Your task to perform on an android device: open app "Flipkart Online Shopping App" (install if not already installed) and go to login screen Image 0: 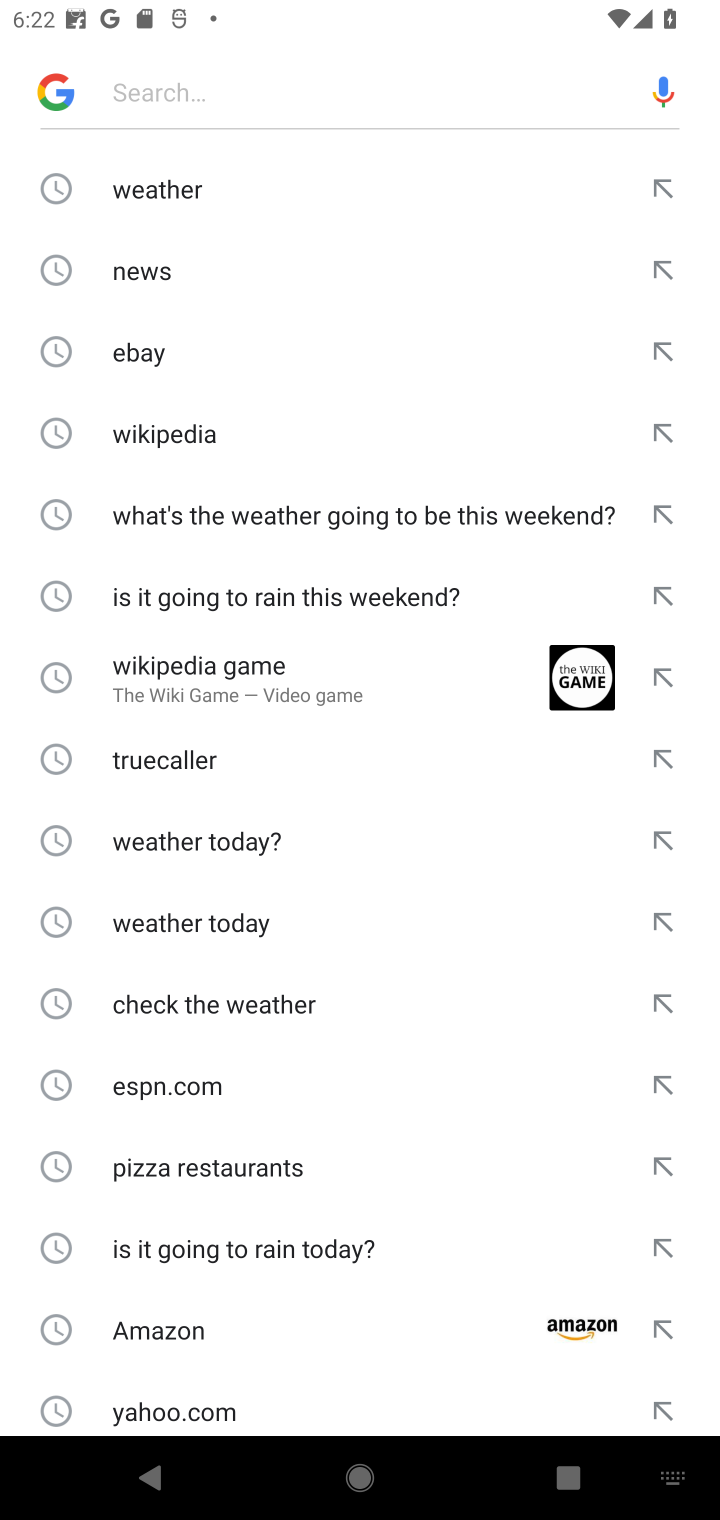
Step 0: press home button
Your task to perform on an android device: open app "Flipkart Online Shopping App" (install if not already installed) and go to login screen Image 1: 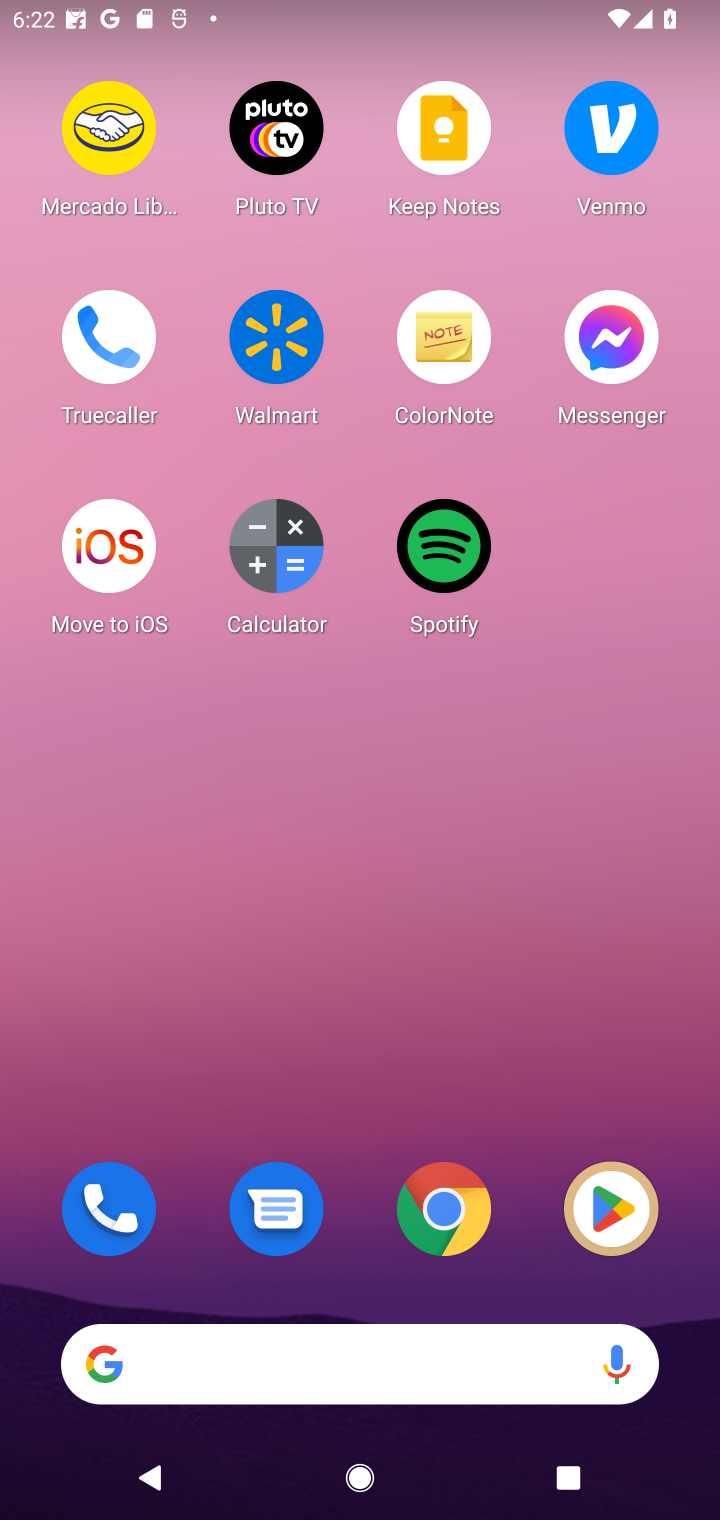
Step 1: drag from (335, 1283) to (324, 61)
Your task to perform on an android device: open app "Flipkart Online Shopping App" (install if not already installed) and go to login screen Image 2: 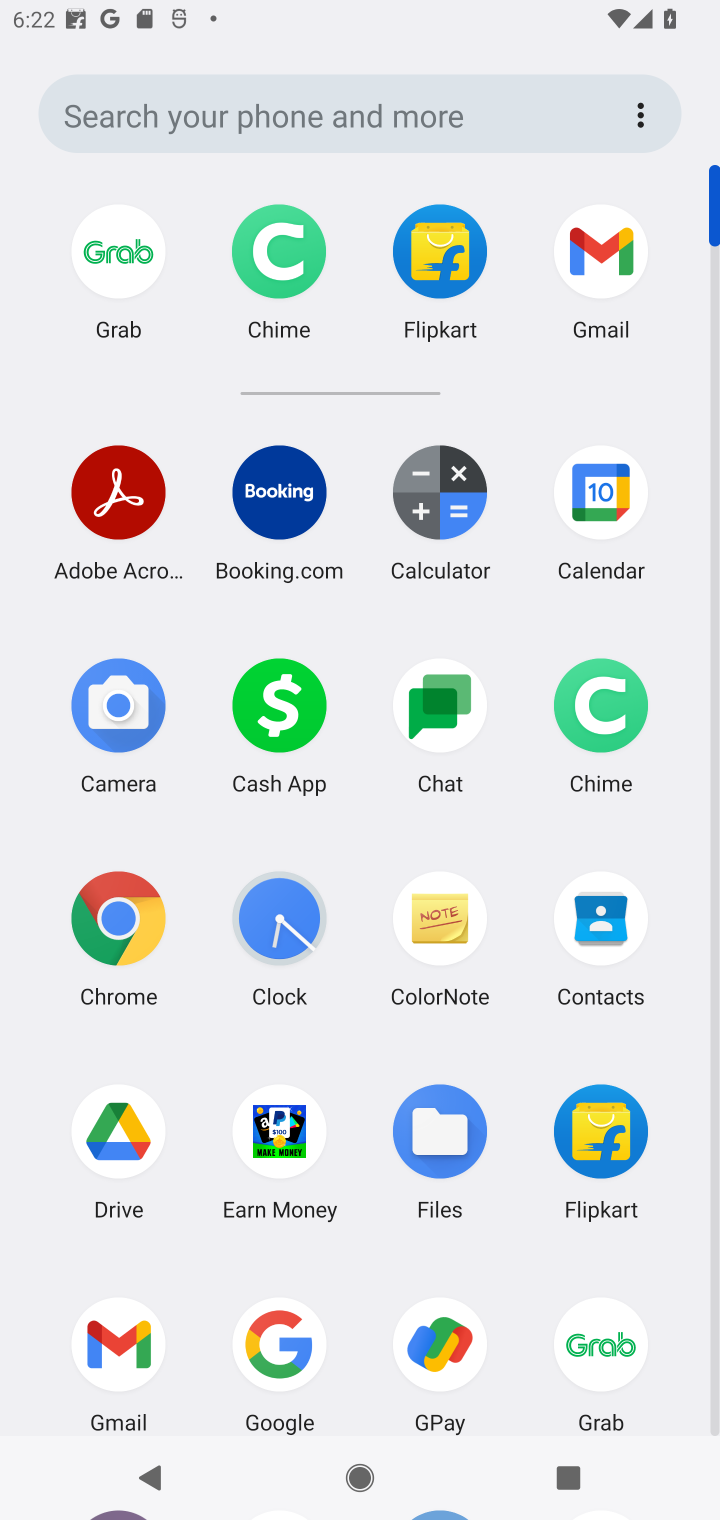
Step 2: press home button
Your task to perform on an android device: open app "Flipkart Online Shopping App" (install if not already installed) and go to login screen Image 3: 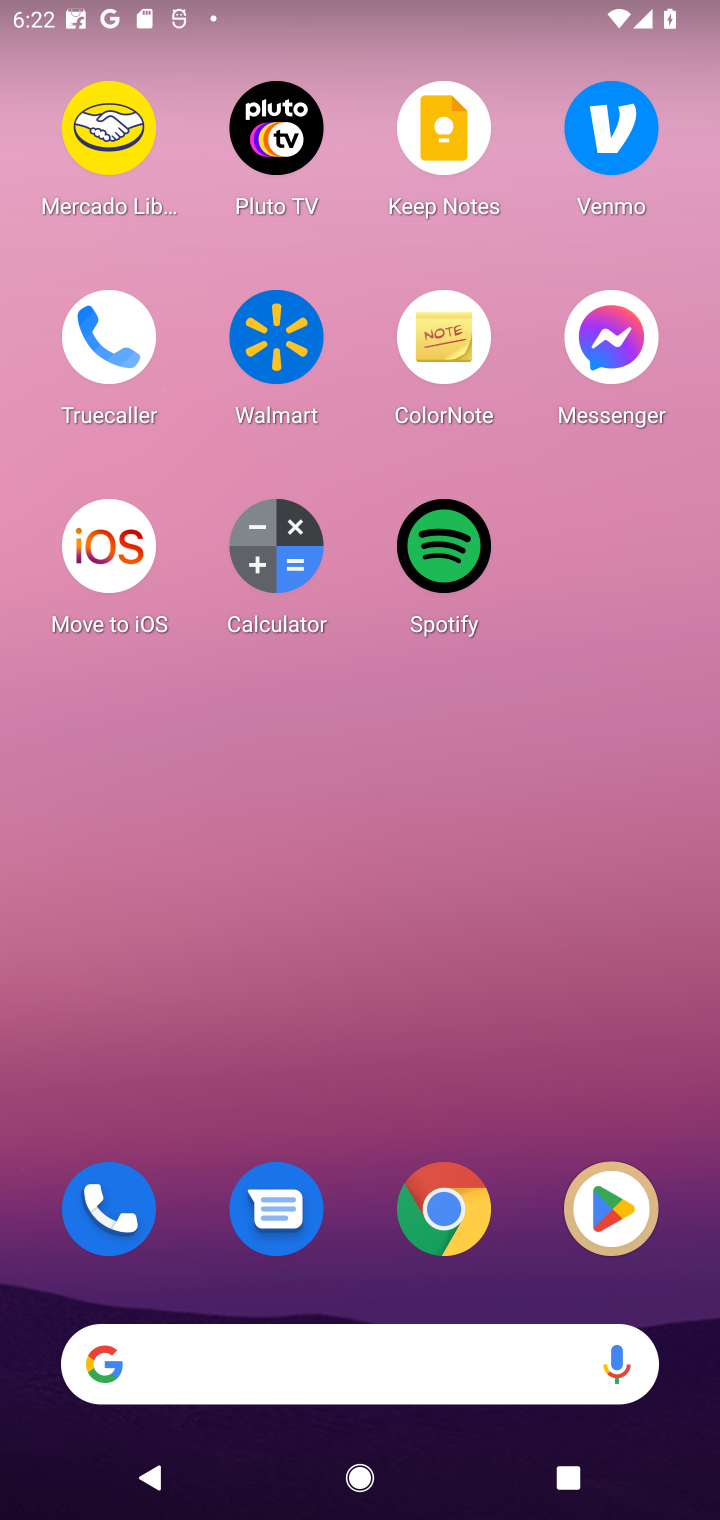
Step 3: click (634, 1211)
Your task to perform on an android device: open app "Flipkart Online Shopping App" (install if not already installed) and go to login screen Image 4: 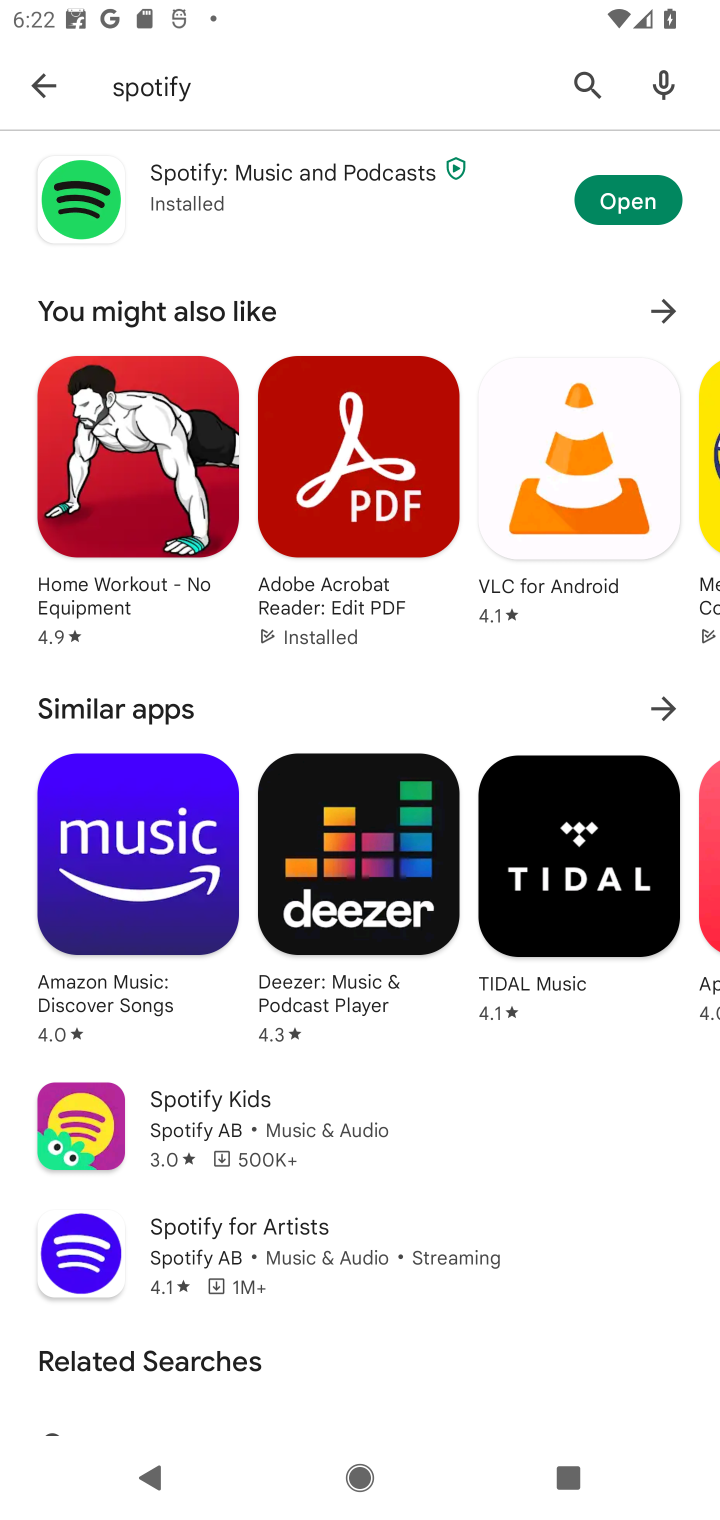
Step 4: click (583, 110)
Your task to perform on an android device: open app "Flipkart Online Shopping App" (install if not already installed) and go to login screen Image 5: 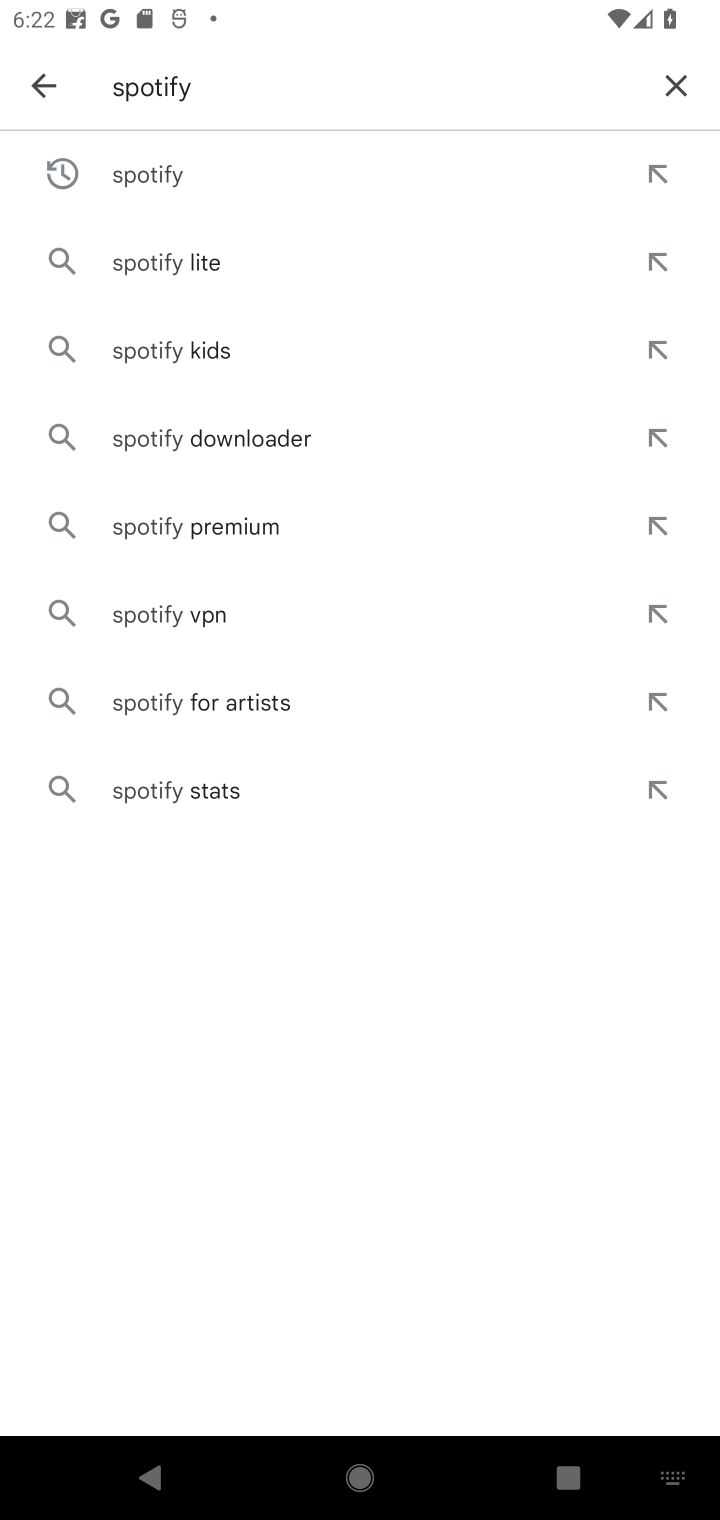
Step 5: click (662, 82)
Your task to perform on an android device: open app "Flipkart Online Shopping App" (install if not already installed) and go to login screen Image 6: 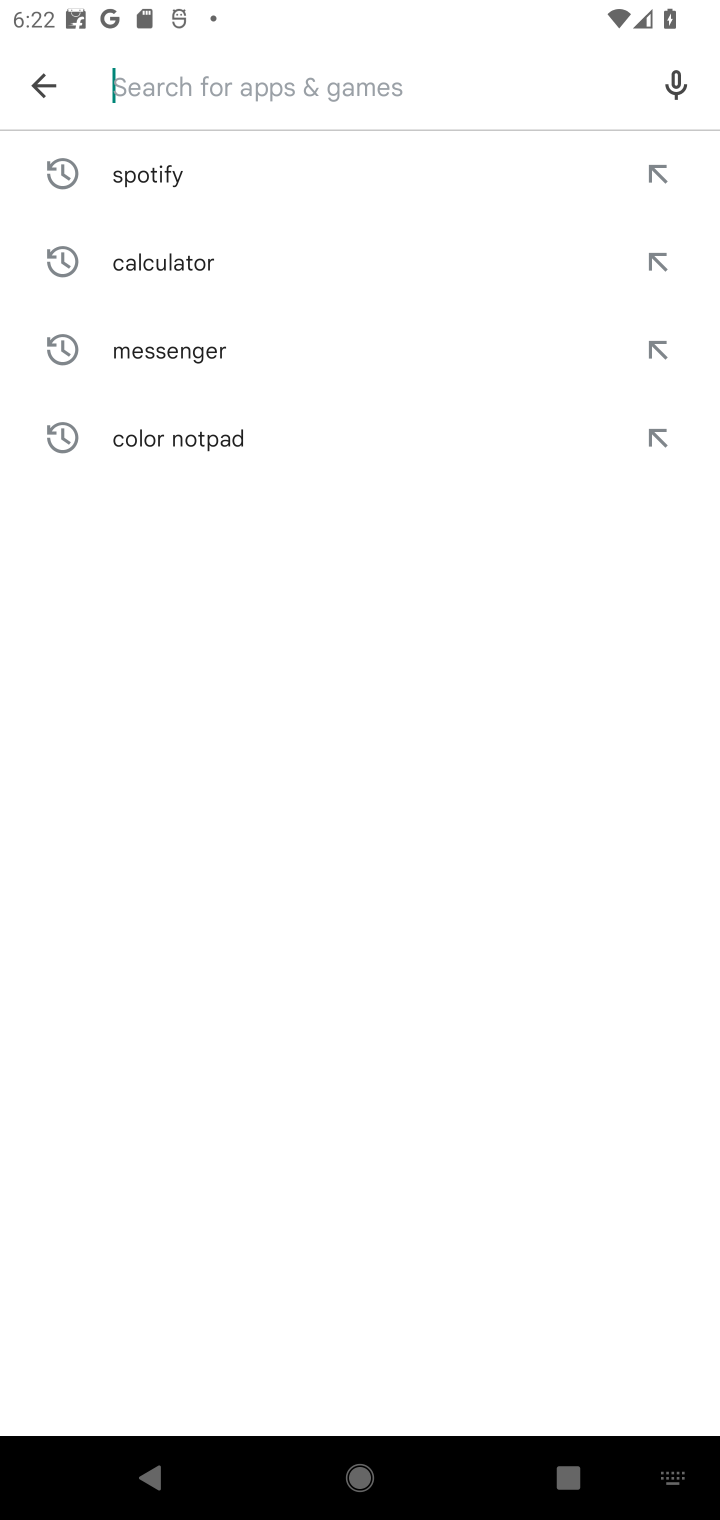
Step 6: type "flipkart"
Your task to perform on an android device: open app "Flipkart Online Shopping App" (install if not already installed) and go to login screen Image 7: 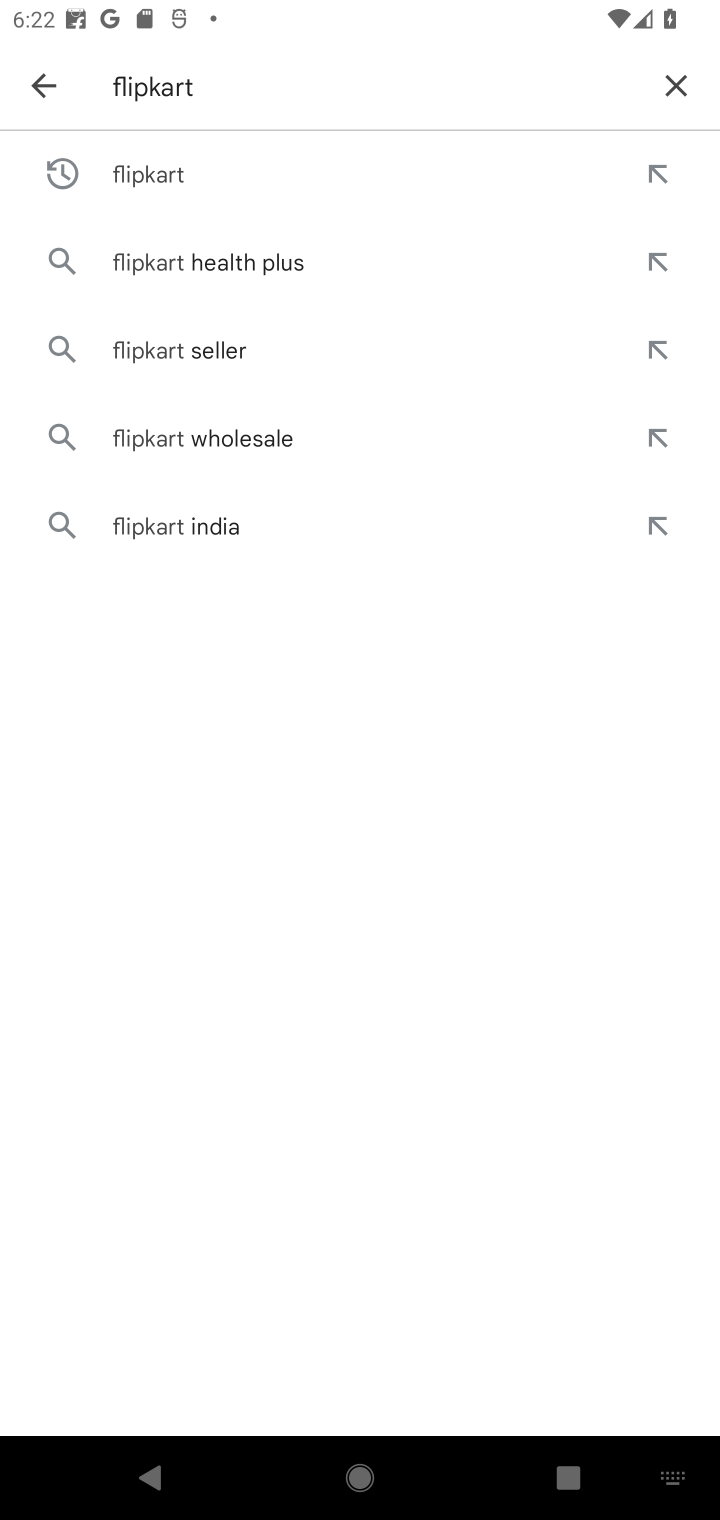
Step 7: click (260, 183)
Your task to perform on an android device: open app "Flipkart Online Shopping App" (install if not already installed) and go to login screen Image 8: 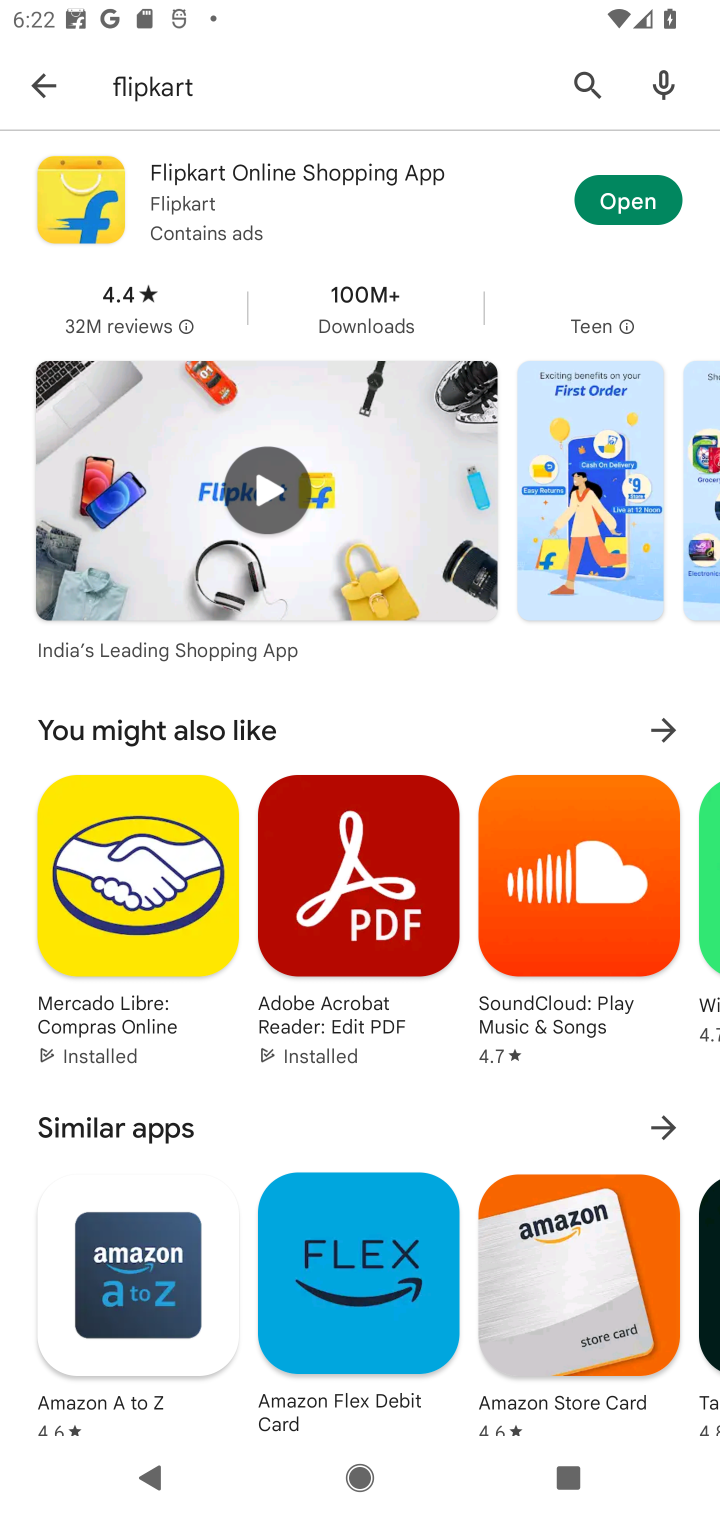
Step 8: click (593, 217)
Your task to perform on an android device: open app "Flipkart Online Shopping App" (install if not already installed) and go to login screen Image 9: 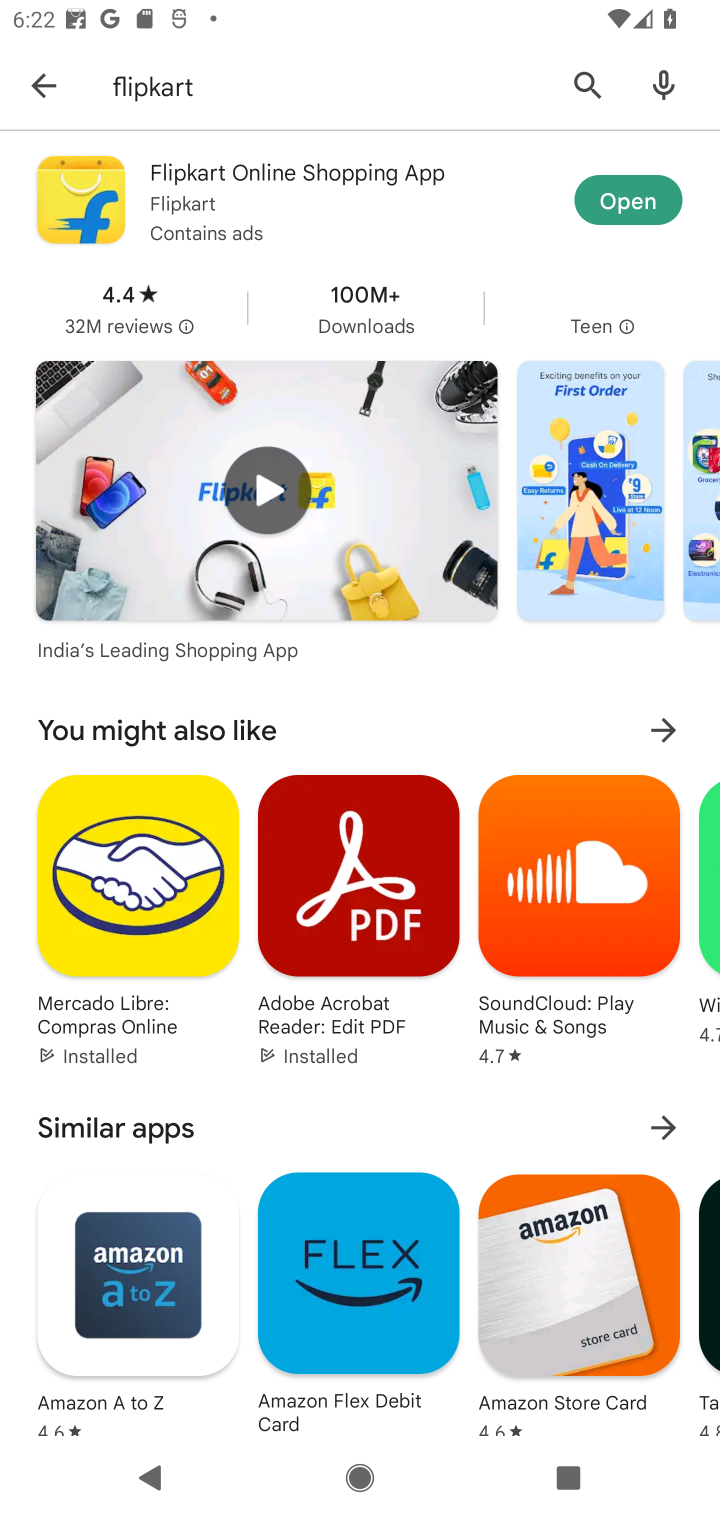
Step 9: task complete